Your task to perform on an android device: Open settings on Google Maps Image 0: 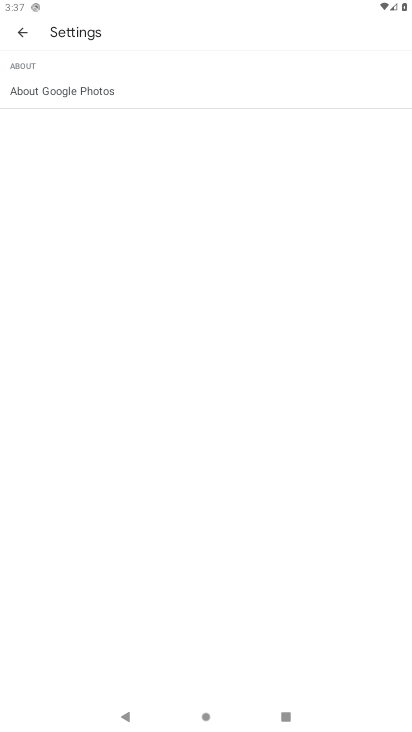
Step 0: press home button
Your task to perform on an android device: Open settings on Google Maps Image 1: 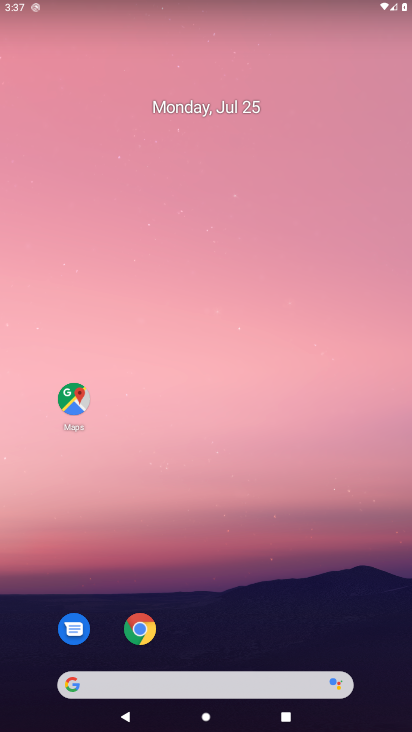
Step 1: click (85, 406)
Your task to perform on an android device: Open settings on Google Maps Image 2: 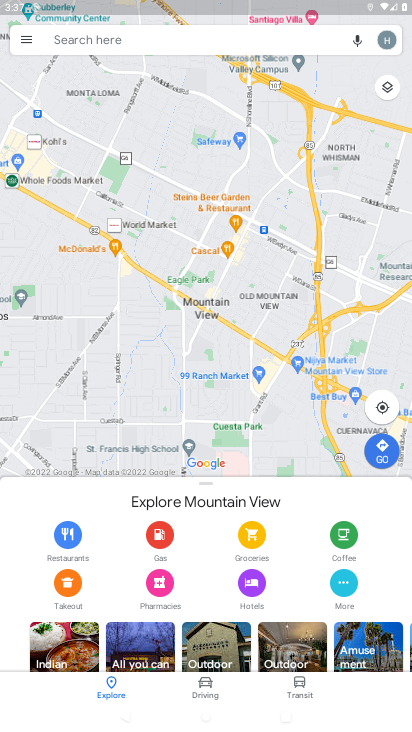
Step 2: task complete